Your task to perform on an android device: open app "Move to iOS" (install if not already installed) and go to login screen Image 0: 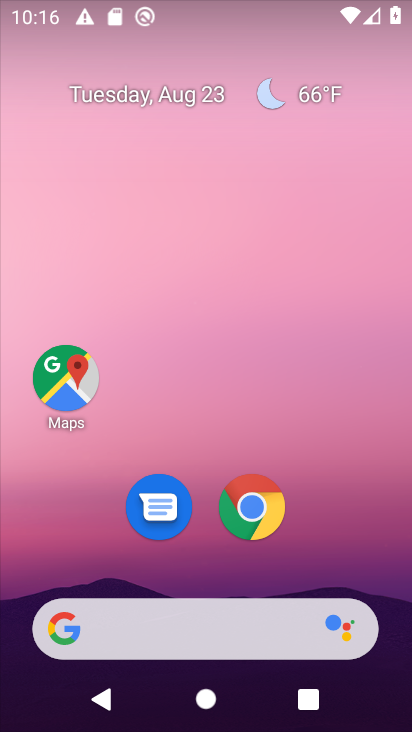
Step 0: drag from (386, 595) to (298, 190)
Your task to perform on an android device: open app "Move to iOS" (install if not already installed) and go to login screen Image 1: 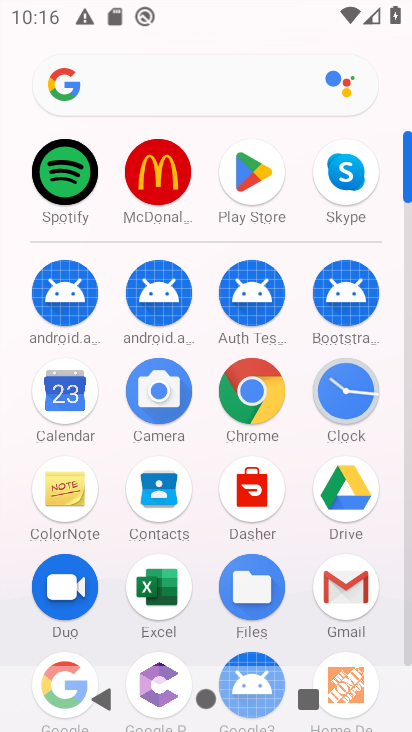
Step 1: click (406, 649)
Your task to perform on an android device: open app "Move to iOS" (install if not already installed) and go to login screen Image 2: 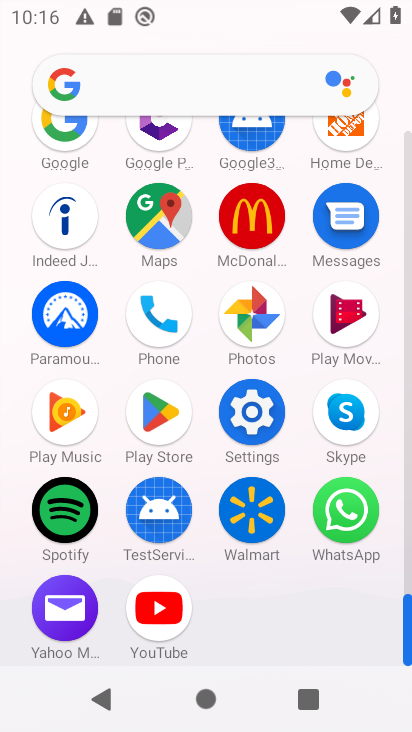
Step 2: click (155, 408)
Your task to perform on an android device: open app "Move to iOS" (install if not already installed) and go to login screen Image 3: 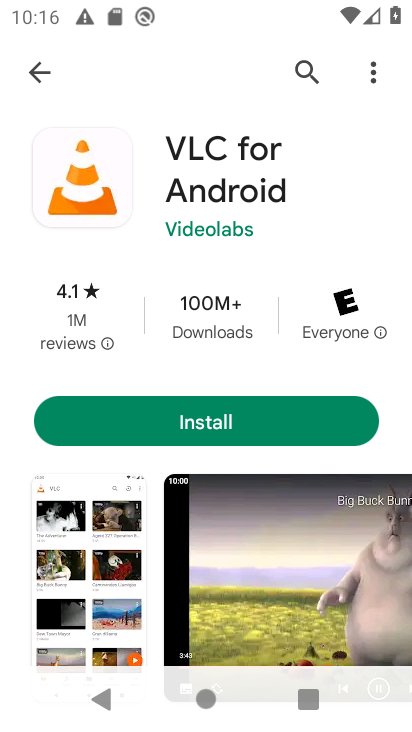
Step 3: click (309, 64)
Your task to perform on an android device: open app "Move to iOS" (install if not already installed) and go to login screen Image 4: 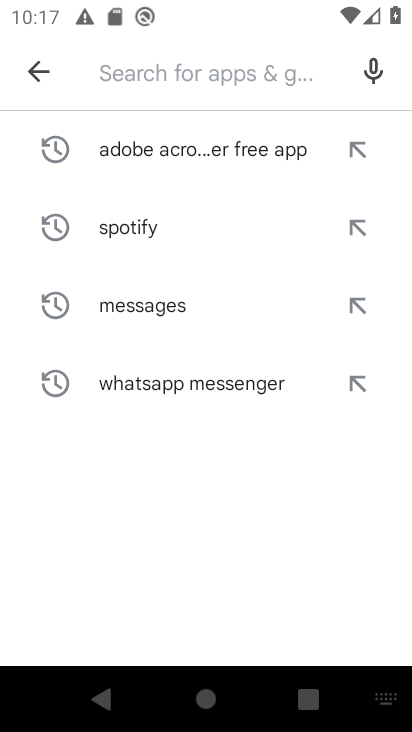
Step 4: type "Move to iOS"
Your task to perform on an android device: open app "Move to iOS" (install if not already installed) and go to login screen Image 5: 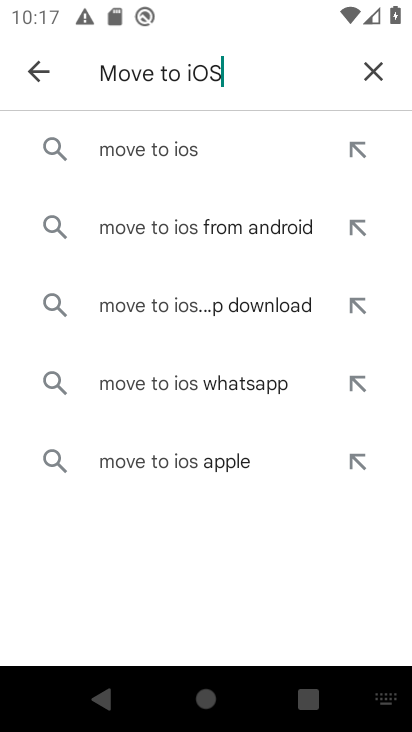
Step 5: click (133, 151)
Your task to perform on an android device: open app "Move to iOS" (install if not already installed) and go to login screen Image 6: 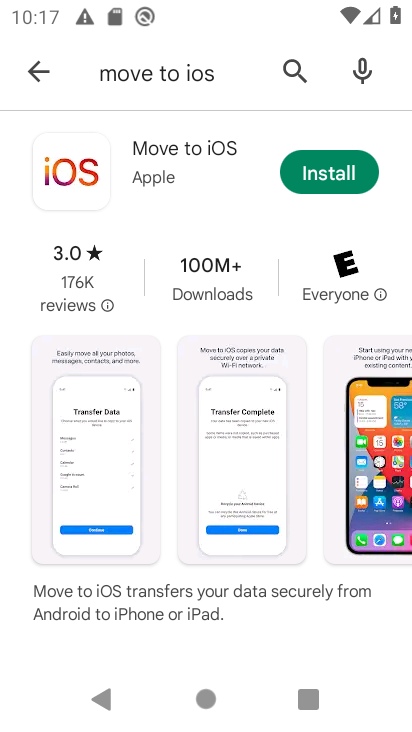
Step 6: click (333, 172)
Your task to perform on an android device: open app "Move to iOS" (install if not already installed) and go to login screen Image 7: 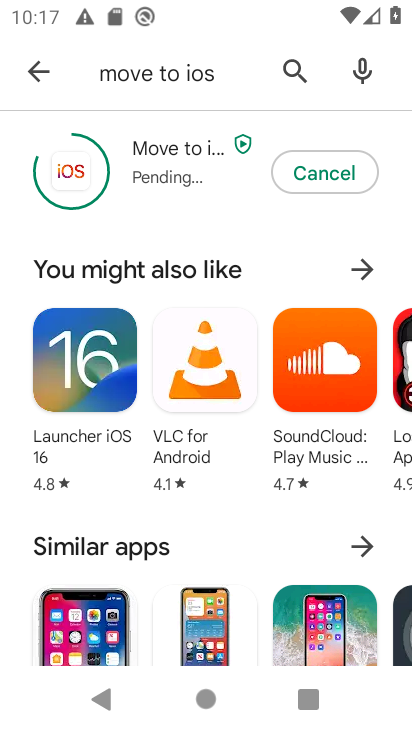
Step 7: click (142, 156)
Your task to perform on an android device: open app "Move to iOS" (install if not already installed) and go to login screen Image 8: 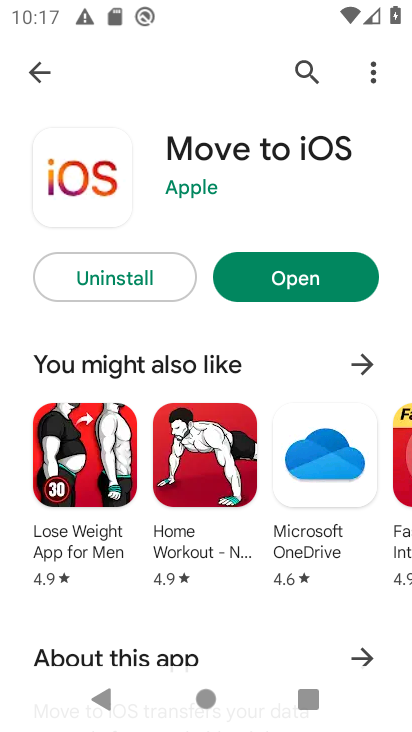
Step 8: click (290, 276)
Your task to perform on an android device: open app "Move to iOS" (install if not already installed) and go to login screen Image 9: 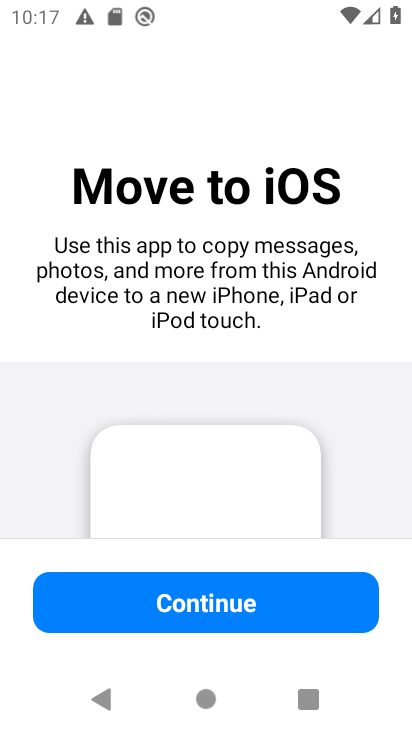
Step 9: click (213, 601)
Your task to perform on an android device: open app "Move to iOS" (install if not already installed) and go to login screen Image 10: 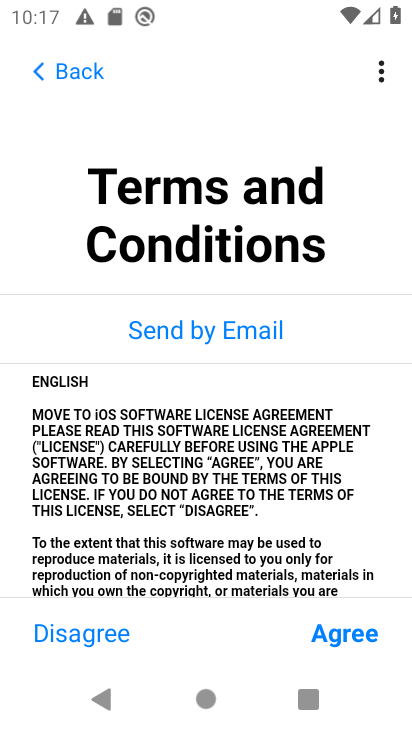
Step 10: click (339, 632)
Your task to perform on an android device: open app "Move to iOS" (install if not already installed) and go to login screen Image 11: 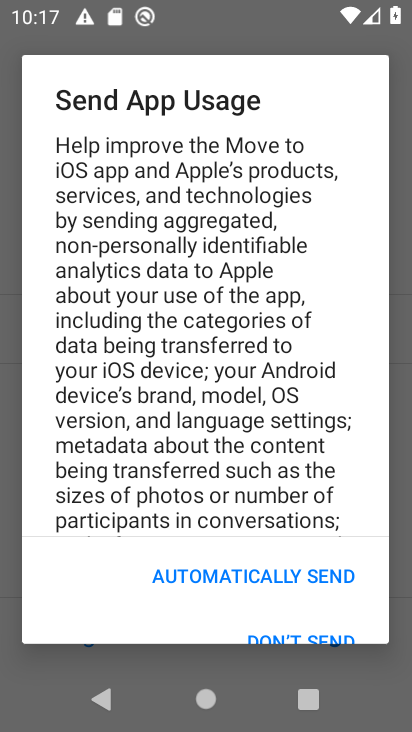
Step 11: click (298, 637)
Your task to perform on an android device: open app "Move to iOS" (install if not already installed) and go to login screen Image 12: 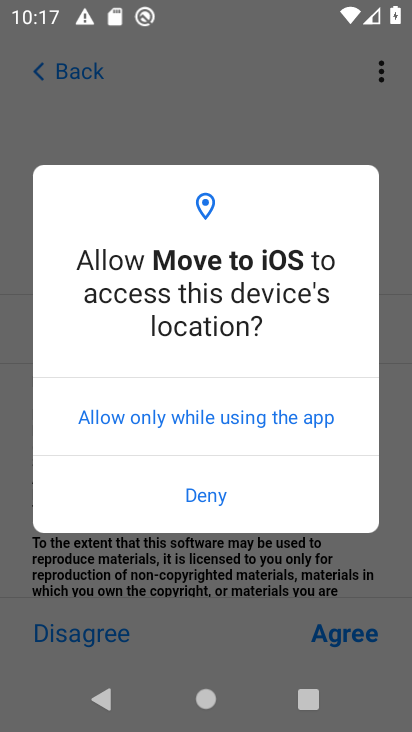
Step 12: click (187, 405)
Your task to perform on an android device: open app "Move to iOS" (install if not already installed) and go to login screen Image 13: 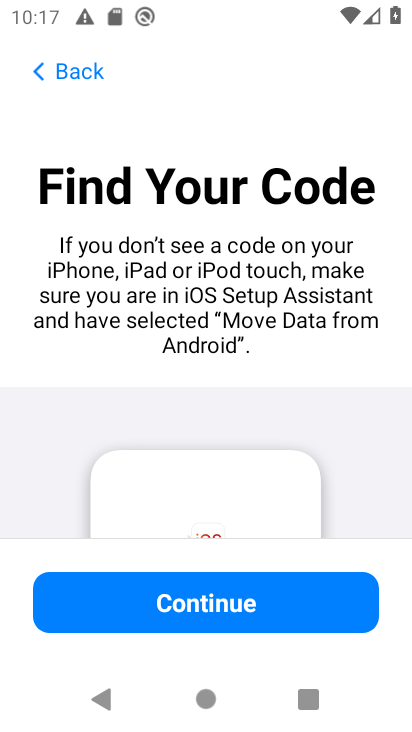
Step 13: click (218, 604)
Your task to perform on an android device: open app "Move to iOS" (install if not already installed) and go to login screen Image 14: 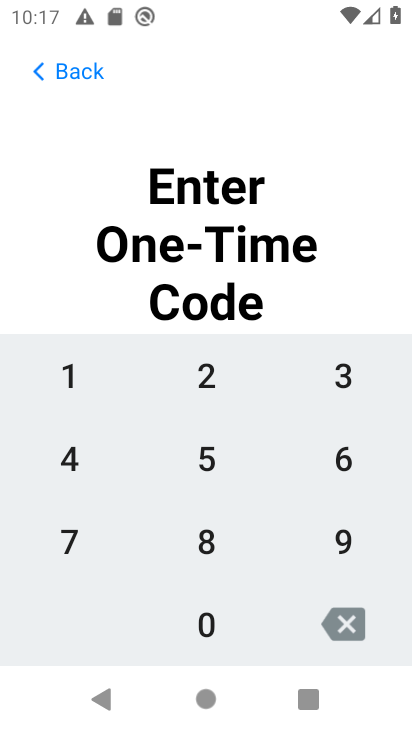
Step 14: task complete